Your task to perform on an android device: turn pop-ups on in chrome Image 0: 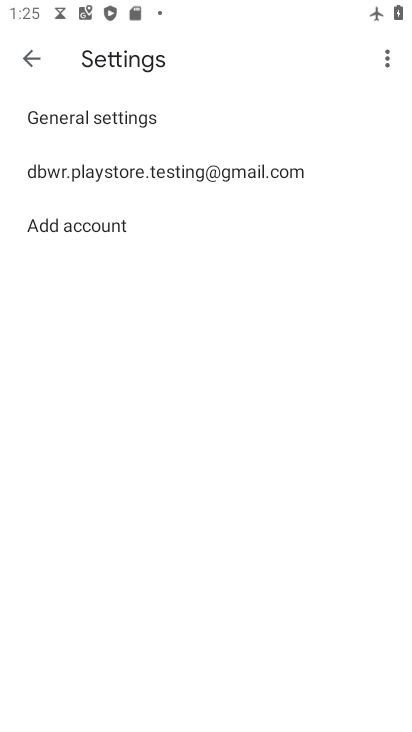
Step 0: press home button
Your task to perform on an android device: turn pop-ups on in chrome Image 1: 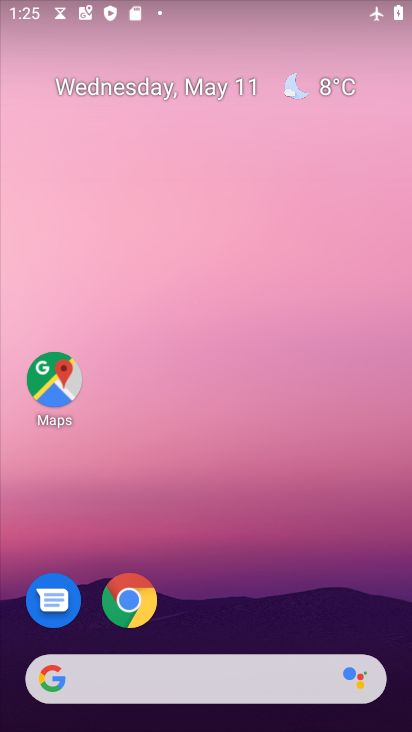
Step 1: click (128, 590)
Your task to perform on an android device: turn pop-ups on in chrome Image 2: 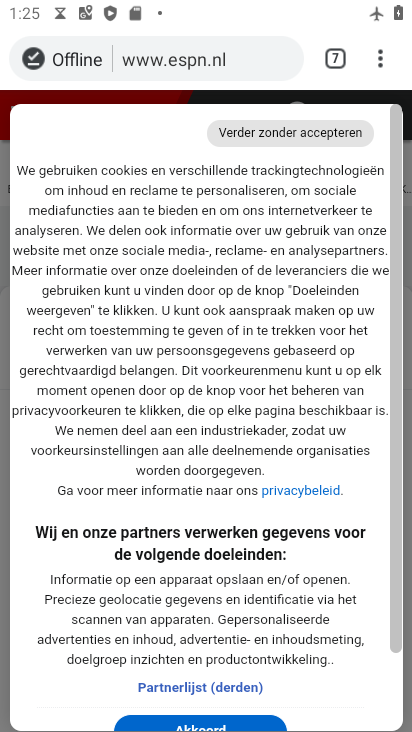
Step 2: click (385, 53)
Your task to perform on an android device: turn pop-ups on in chrome Image 3: 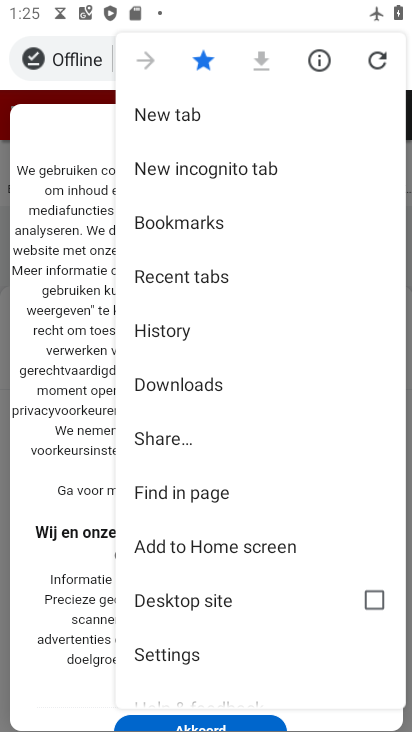
Step 3: click (213, 648)
Your task to perform on an android device: turn pop-ups on in chrome Image 4: 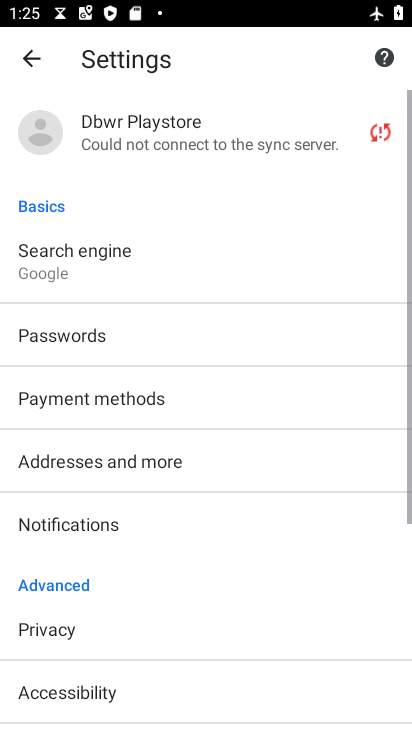
Step 4: drag from (191, 560) to (204, 164)
Your task to perform on an android device: turn pop-ups on in chrome Image 5: 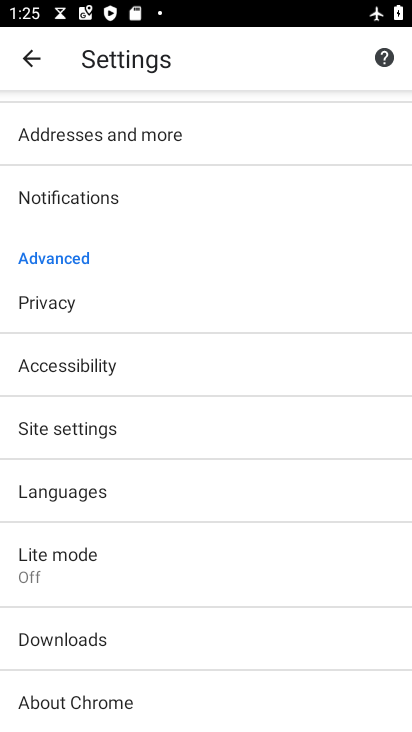
Step 5: click (106, 424)
Your task to perform on an android device: turn pop-ups on in chrome Image 6: 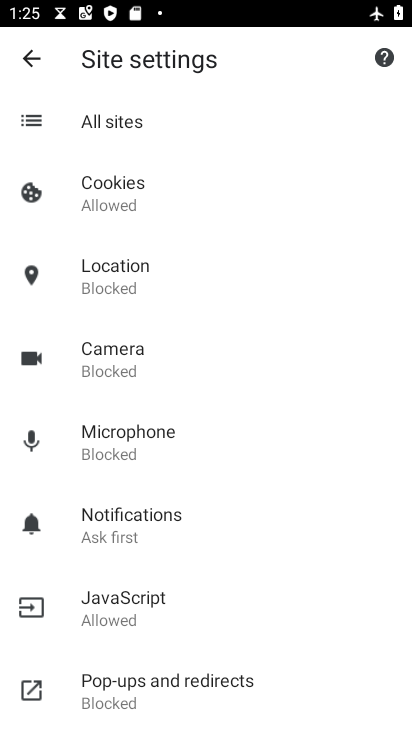
Step 6: drag from (189, 619) to (222, 208)
Your task to perform on an android device: turn pop-ups on in chrome Image 7: 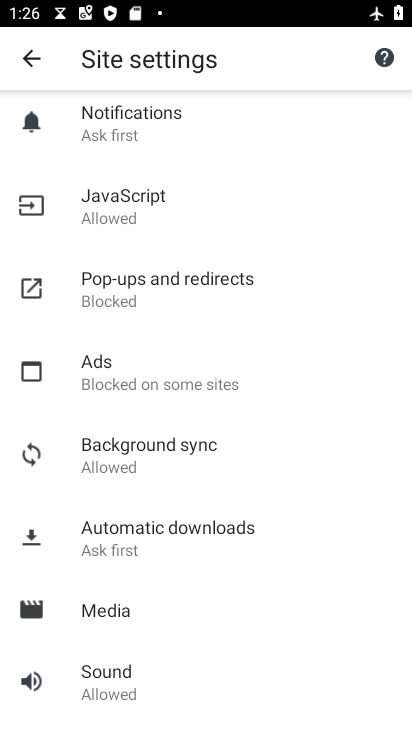
Step 7: click (186, 309)
Your task to perform on an android device: turn pop-ups on in chrome Image 8: 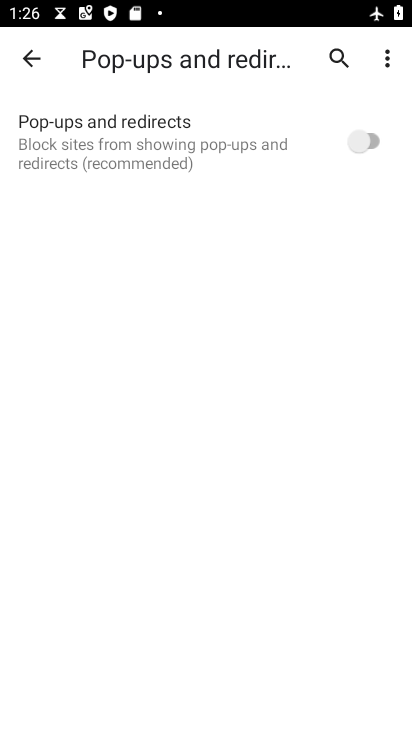
Step 8: click (367, 133)
Your task to perform on an android device: turn pop-ups on in chrome Image 9: 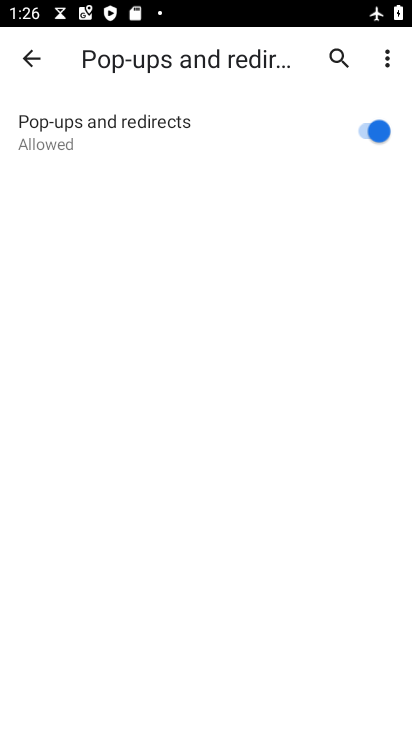
Step 9: task complete